Your task to perform on an android device: toggle notification dots Image 0: 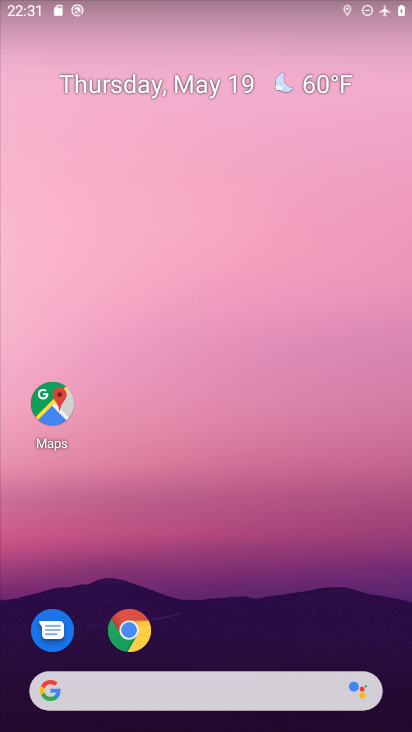
Step 0: drag from (270, 517) to (224, 8)
Your task to perform on an android device: toggle notification dots Image 1: 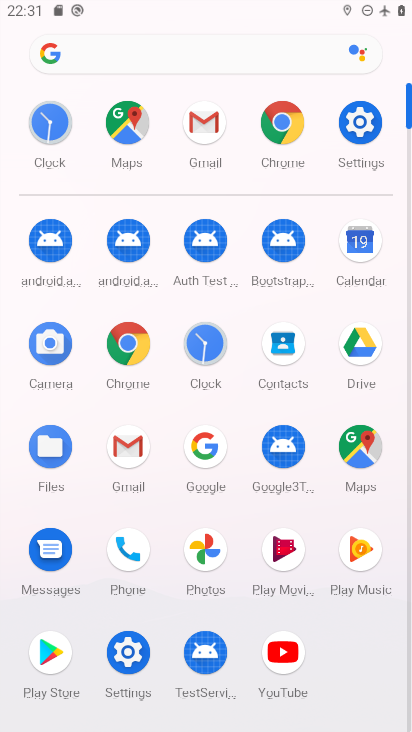
Step 1: click (357, 122)
Your task to perform on an android device: toggle notification dots Image 2: 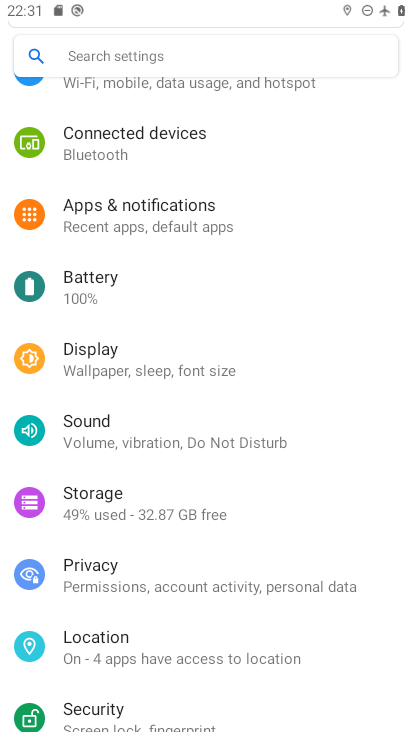
Step 2: click (167, 197)
Your task to perform on an android device: toggle notification dots Image 3: 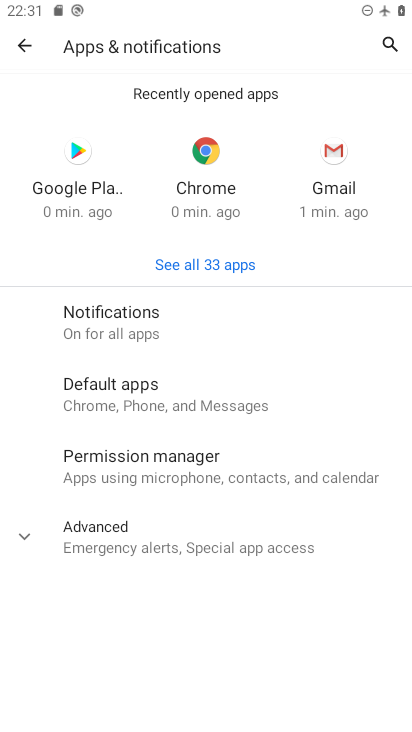
Step 3: click (128, 311)
Your task to perform on an android device: toggle notification dots Image 4: 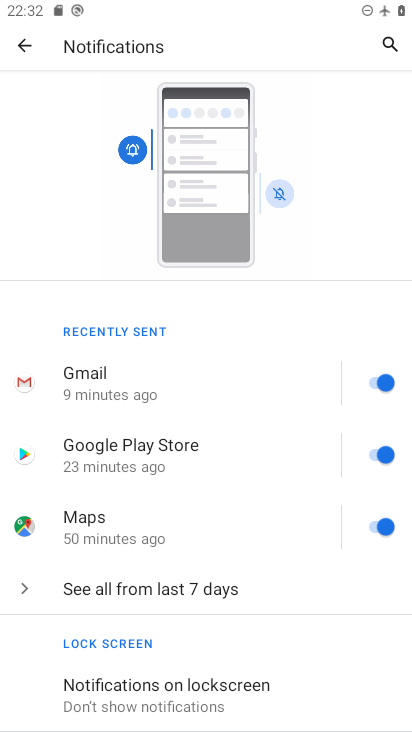
Step 4: drag from (253, 648) to (257, 317)
Your task to perform on an android device: toggle notification dots Image 5: 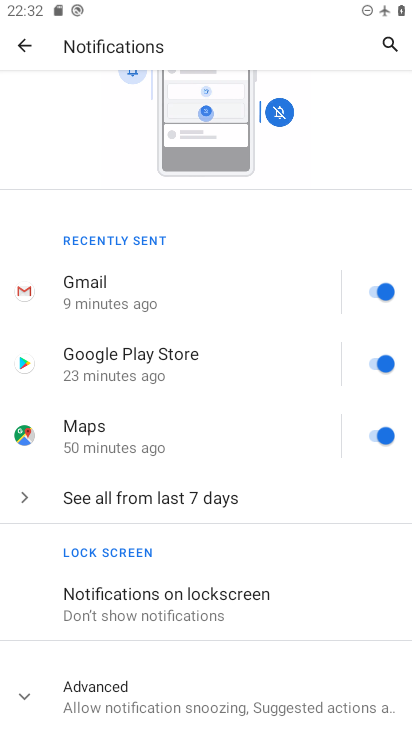
Step 5: click (28, 695)
Your task to perform on an android device: toggle notification dots Image 6: 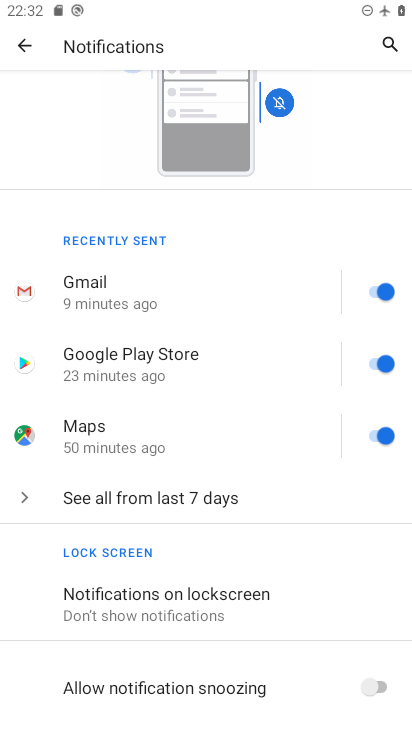
Step 6: drag from (284, 547) to (252, 264)
Your task to perform on an android device: toggle notification dots Image 7: 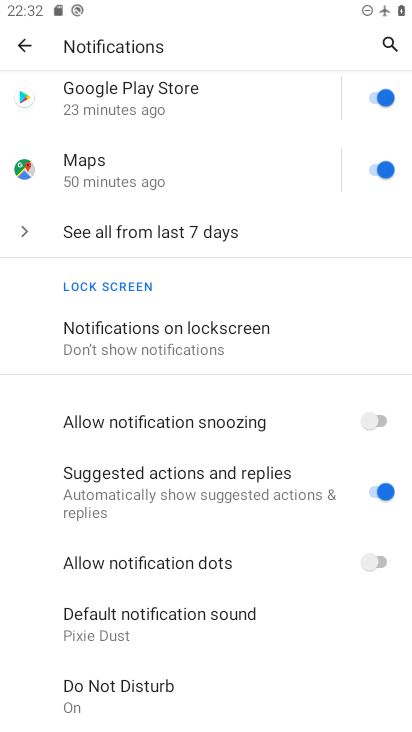
Step 7: click (374, 562)
Your task to perform on an android device: toggle notification dots Image 8: 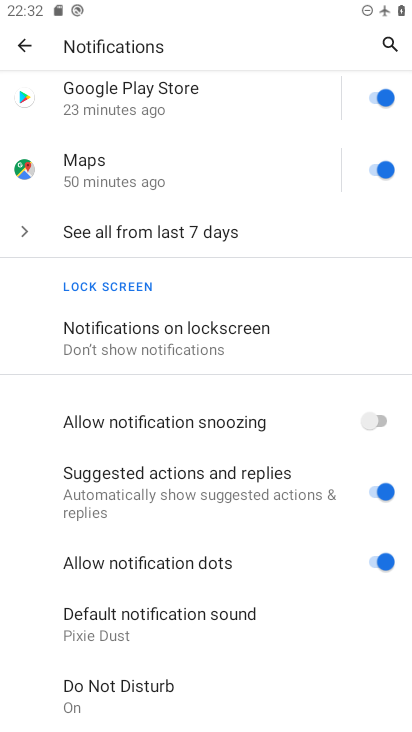
Step 8: task complete